Your task to perform on an android device: find snoozed emails in the gmail app Image 0: 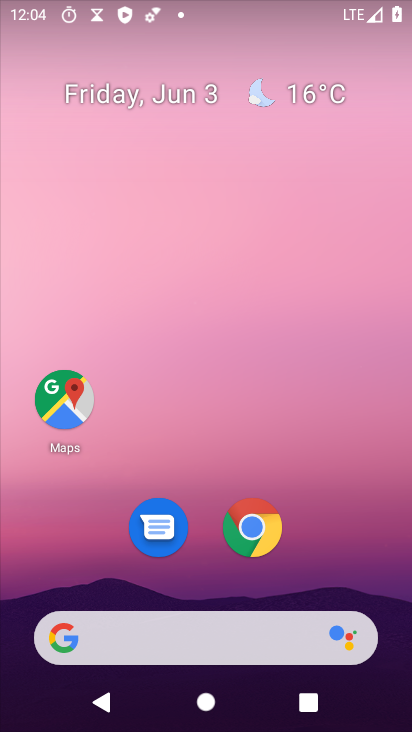
Step 0: click (408, 665)
Your task to perform on an android device: find snoozed emails in the gmail app Image 1: 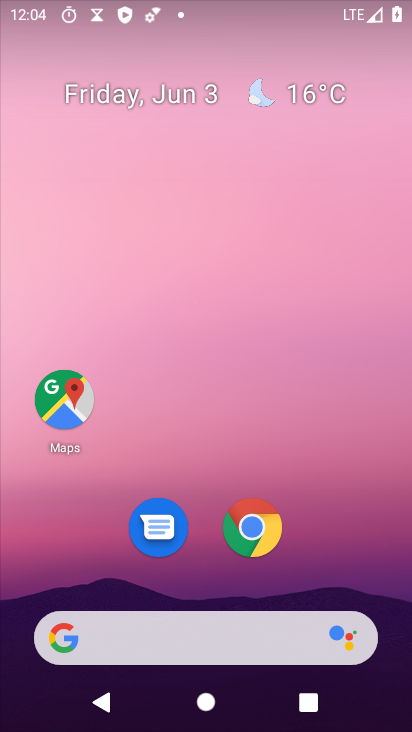
Step 1: drag from (179, 625) to (3, 376)
Your task to perform on an android device: find snoozed emails in the gmail app Image 2: 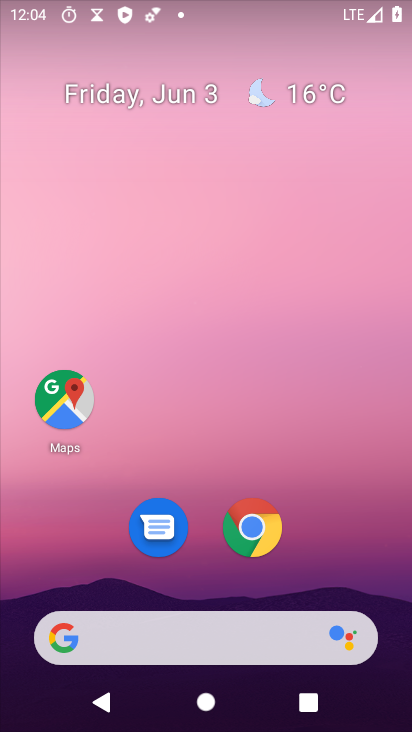
Step 2: click (337, 494)
Your task to perform on an android device: find snoozed emails in the gmail app Image 3: 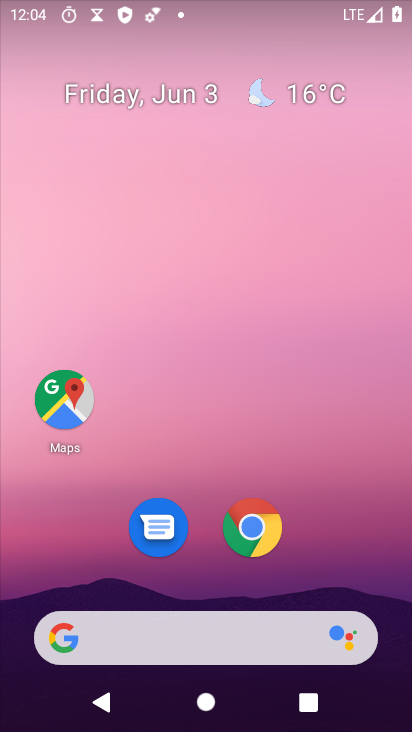
Step 3: drag from (205, 637) to (188, 148)
Your task to perform on an android device: find snoozed emails in the gmail app Image 4: 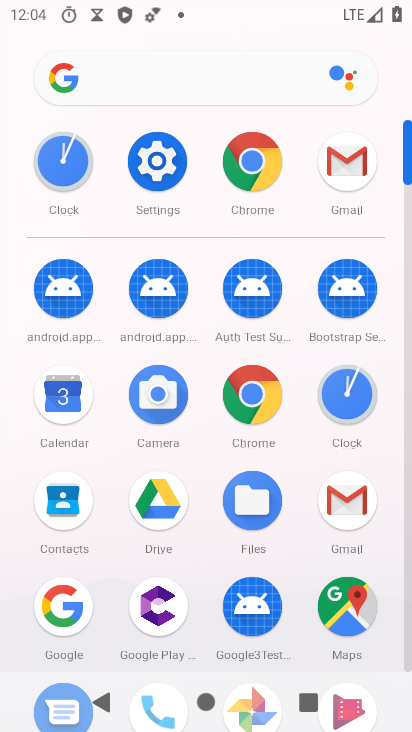
Step 4: click (328, 184)
Your task to perform on an android device: find snoozed emails in the gmail app Image 5: 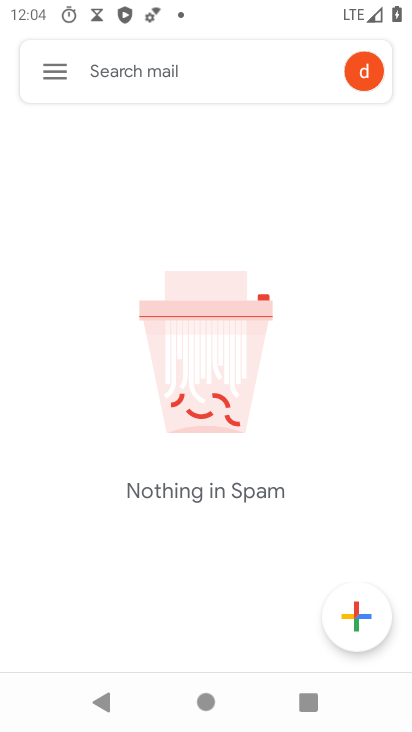
Step 5: click (60, 67)
Your task to perform on an android device: find snoozed emails in the gmail app Image 6: 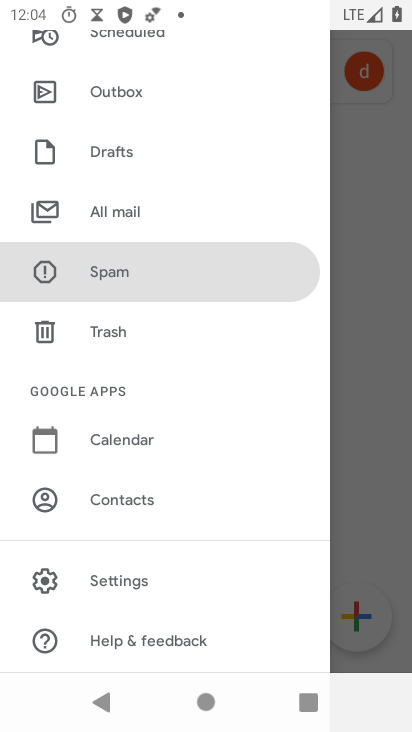
Step 6: drag from (107, 162) to (134, 616)
Your task to perform on an android device: find snoozed emails in the gmail app Image 7: 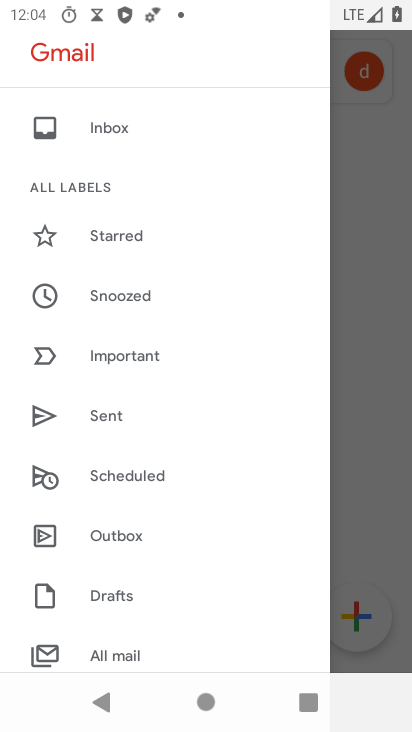
Step 7: click (122, 310)
Your task to perform on an android device: find snoozed emails in the gmail app Image 8: 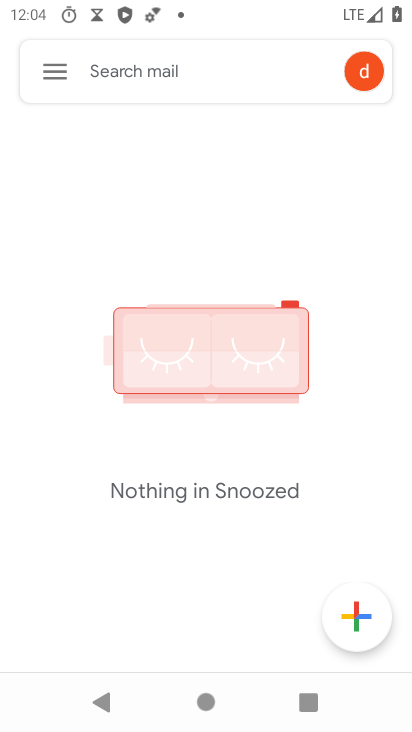
Step 8: task complete